Your task to perform on an android device: Search for pizza restaurants on Maps Image 0: 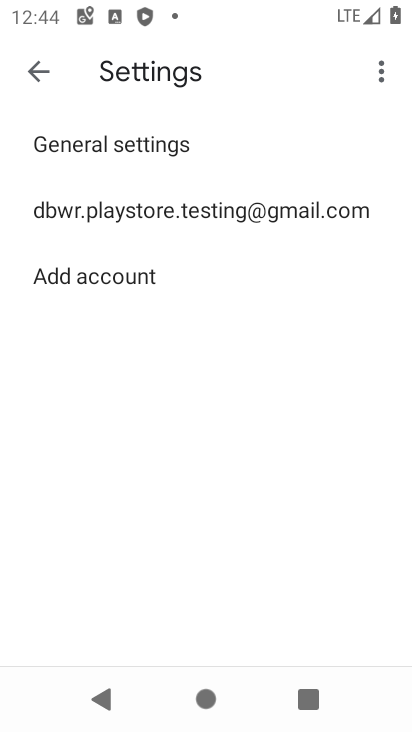
Step 0: drag from (392, 619) to (315, 108)
Your task to perform on an android device: Search for pizza restaurants on Maps Image 1: 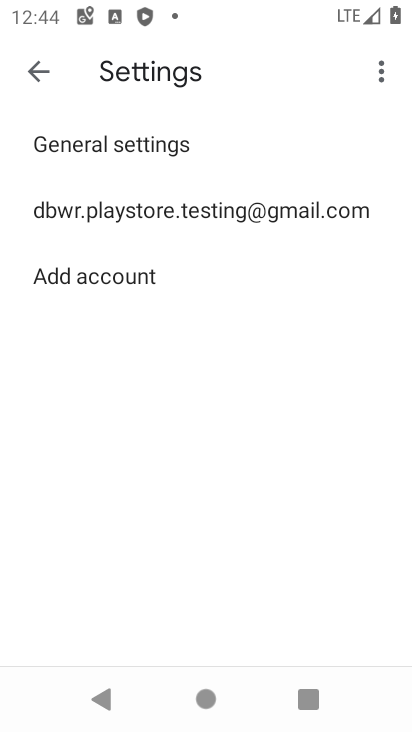
Step 1: press home button
Your task to perform on an android device: Search for pizza restaurants on Maps Image 2: 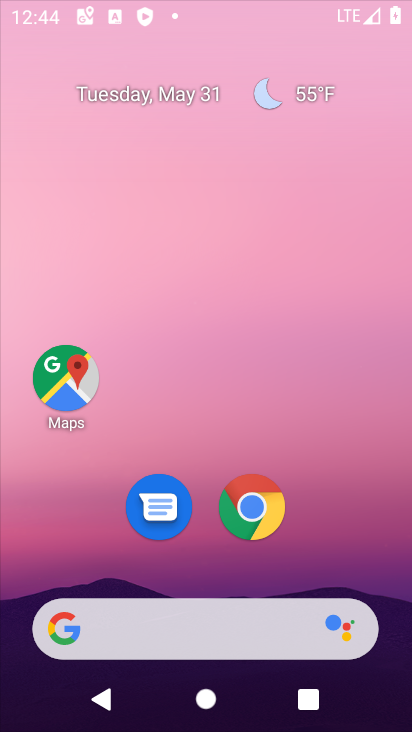
Step 2: drag from (394, 648) to (238, 15)
Your task to perform on an android device: Search for pizza restaurants on Maps Image 3: 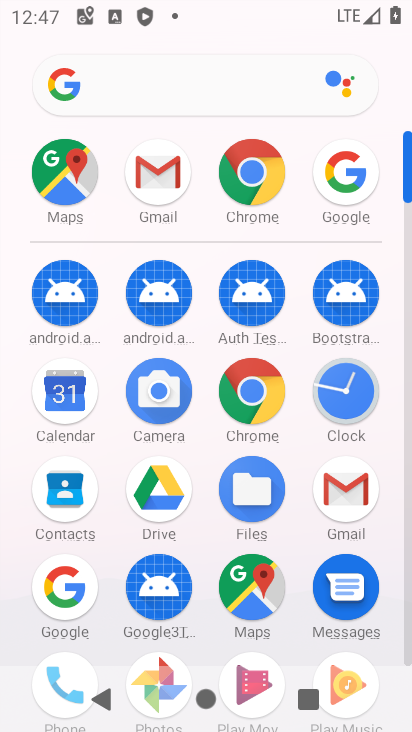
Step 3: click (234, 592)
Your task to perform on an android device: Search for pizza restaurants on Maps Image 4: 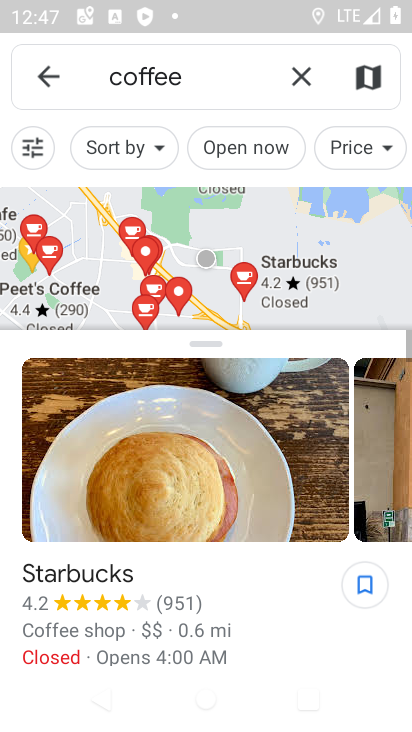
Step 4: click (306, 64)
Your task to perform on an android device: Search for pizza restaurants on Maps Image 5: 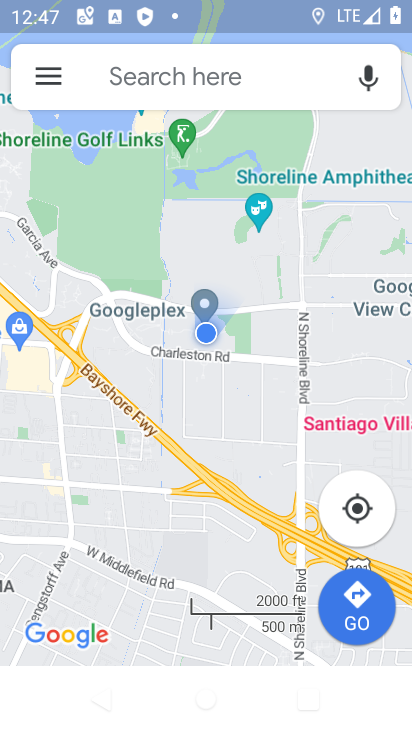
Step 5: click (224, 84)
Your task to perform on an android device: Search for pizza restaurants on Maps Image 6: 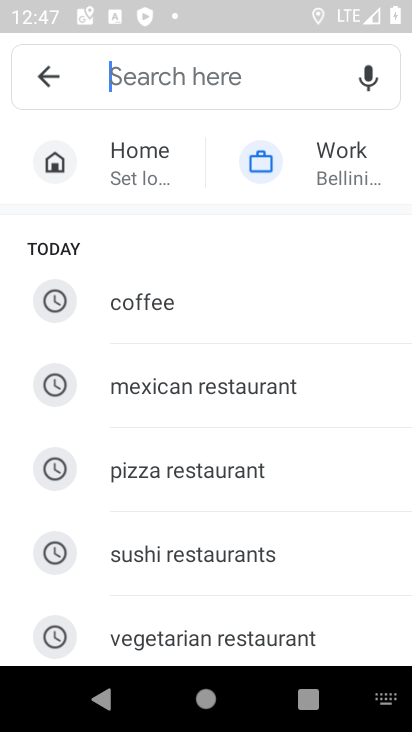
Step 6: drag from (185, 598) to (202, 427)
Your task to perform on an android device: Search for pizza restaurants on Maps Image 7: 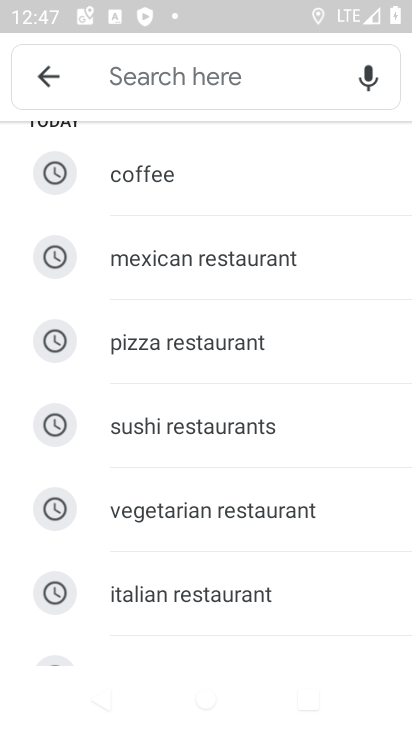
Step 7: click (158, 348)
Your task to perform on an android device: Search for pizza restaurants on Maps Image 8: 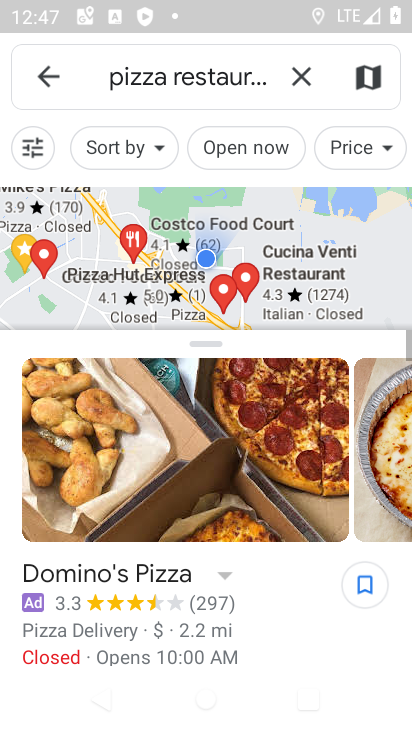
Step 8: task complete